Your task to perform on an android device: When is my next appointment? Image 0: 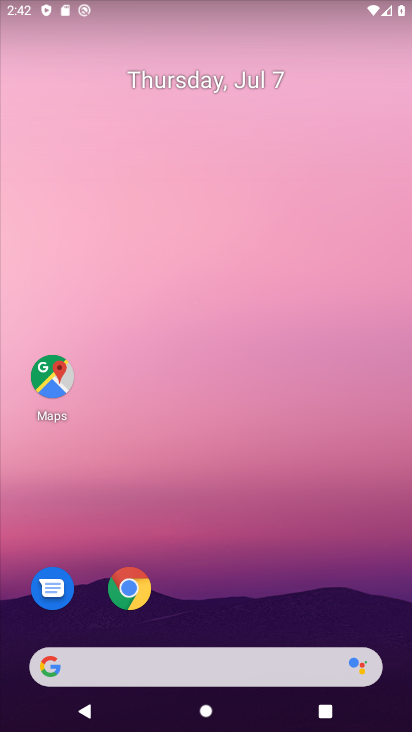
Step 0: drag from (232, 551) to (270, 268)
Your task to perform on an android device: When is my next appointment? Image 1: 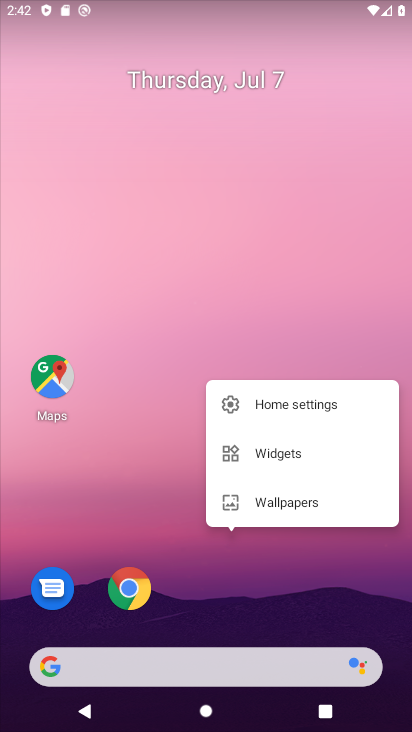
Step 1: click (150, 300)
Your task to perform on an android device: When is my next appointment? Image 2: 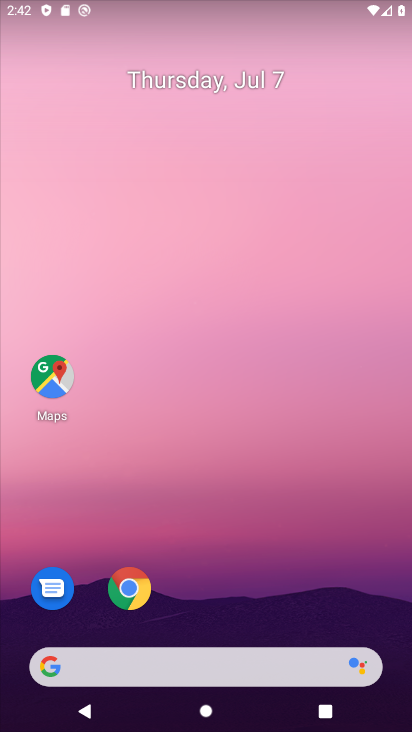
Step 2: drag from (200, 670) to (272, 234)
Your task to perform on an android device: When is my next appointment? Image 3: 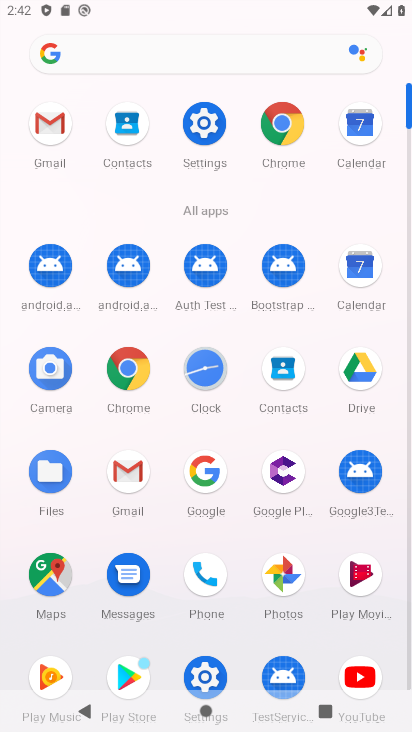
Step 3: click (358, 275)
Your task to perform on an android device: When is my next appointment? Image 4: 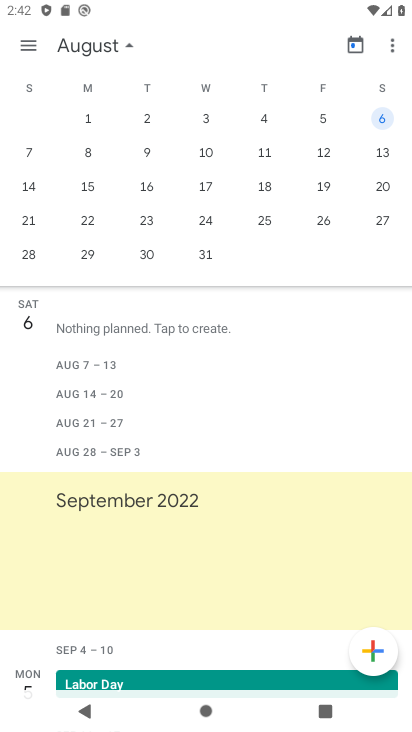
Step 4: click (34, 52)
Your task to perform on an android device: When is my next appointment? Image 5: 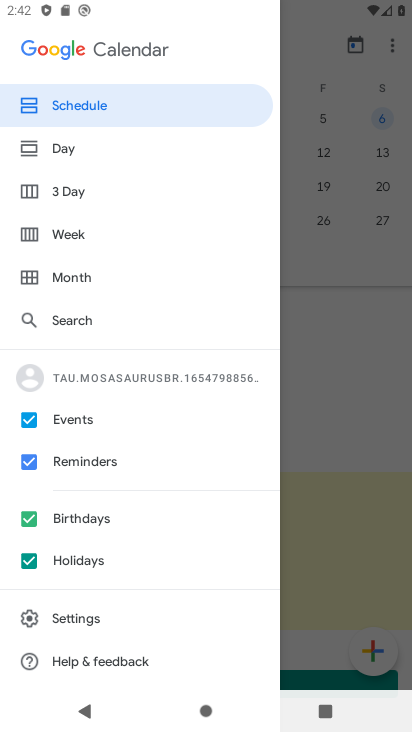
Step 5: click (86, 527)
Your task to perform on an android device: When is my next appointment? Image 6: 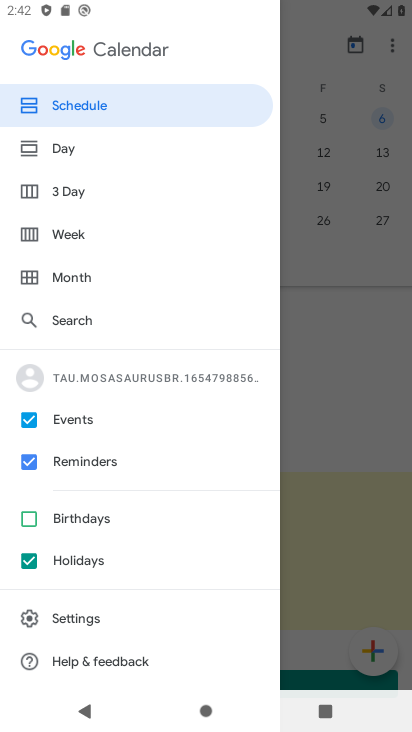
Step 6: click (95, 564)
Your task to perform on an android device: When is my next appointment? Image 7: 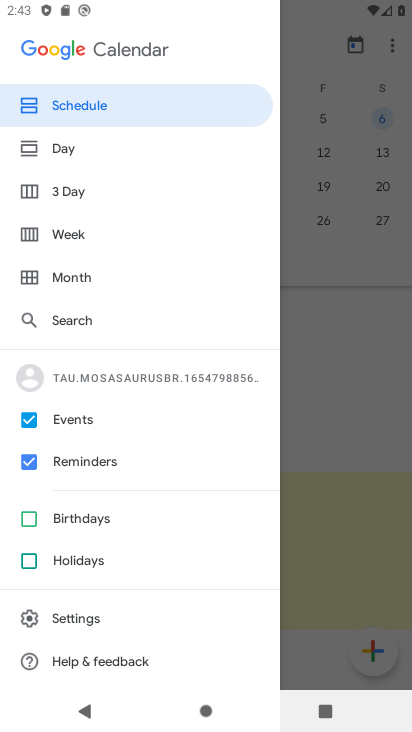
Step 7: click (322, 401)
Your task to perform on an android device: When is my next appointment? Image 8: 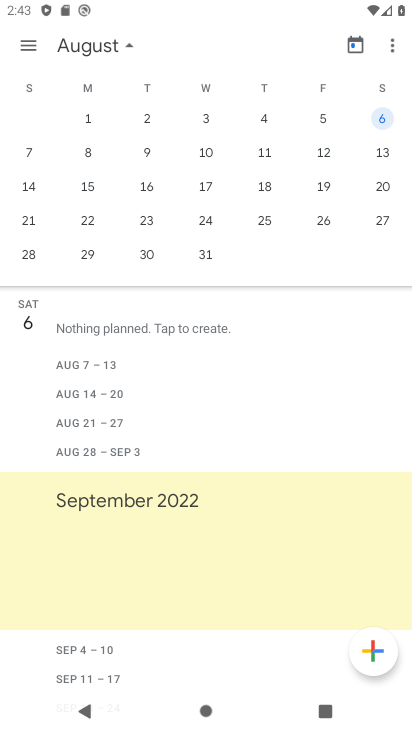
Step 8: task complete